Your task to perform on an android device: Find coffee shops on Maps Image 0: 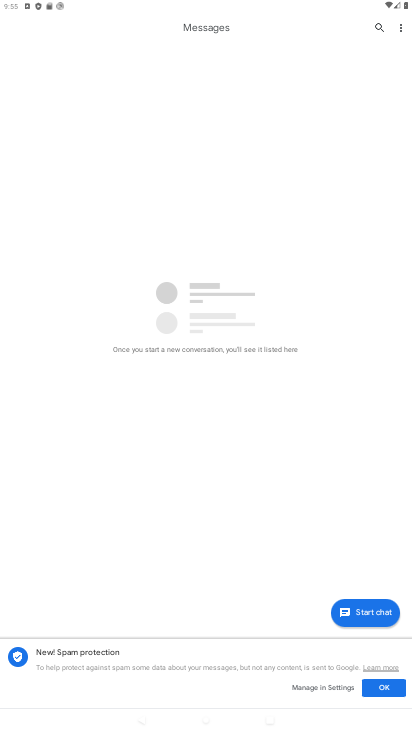
Step 0: press home button
Your task to perform on an android device: Find coffee shops on Maps Image 1: 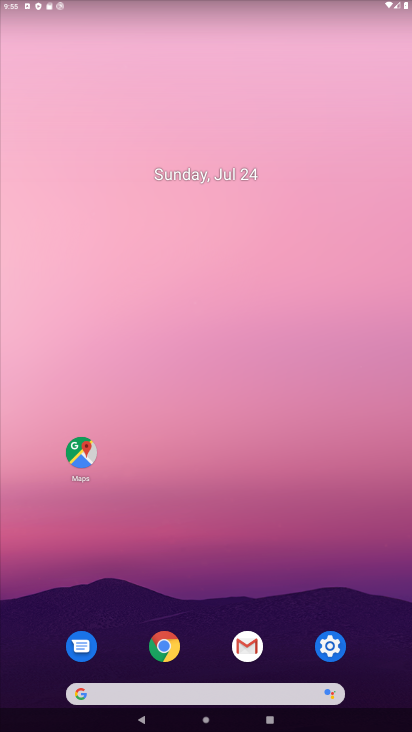
Step 1: click (86, 453)
Your task to perform on an android device: Find coffee shops on Maps Image 2: 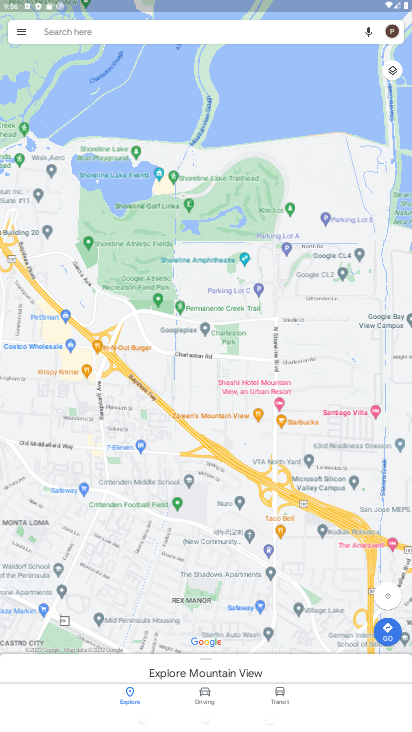
Step 2: click (114, 28)
Your task to perform on an android device: Find coffee shops on Maps Image 3: 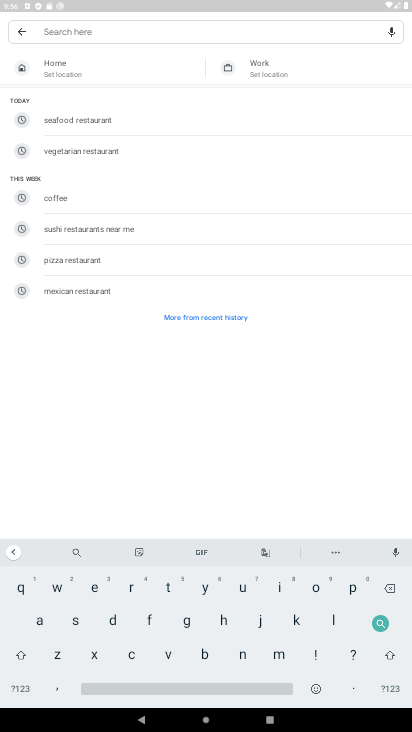
Step 3: click (133, 656)
Your task to perform on an android device: Find coffee shops on Maps Image 4: 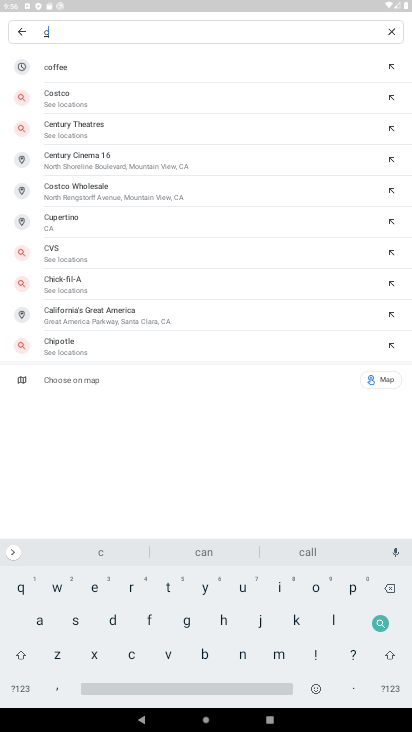
Step 4: click (111, 59)
Your task to perform on an android device: Find coffee shops on Maps Image 5: 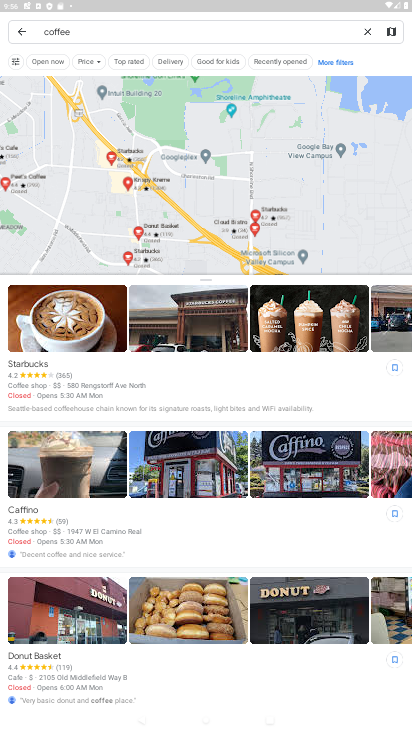
Step 5: task complete